Your task to perform on an android device: refresh tabs in the chrome app Image 0: 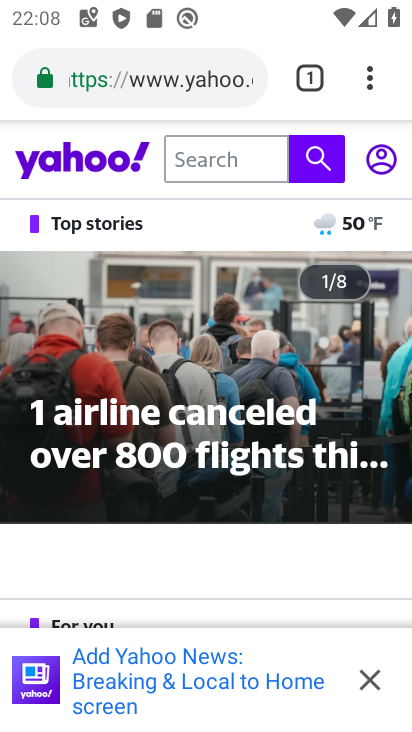
Step 0: press home button
Your task to perform on an android device: refresh tabs in the chrome app Image 1: 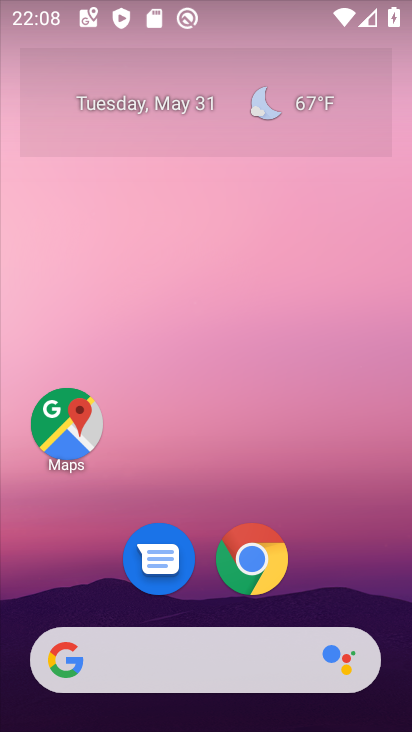
Step 1: click (257, 567)
Your task to perform on an android device: refresh tabs in the chrome app Image 2: 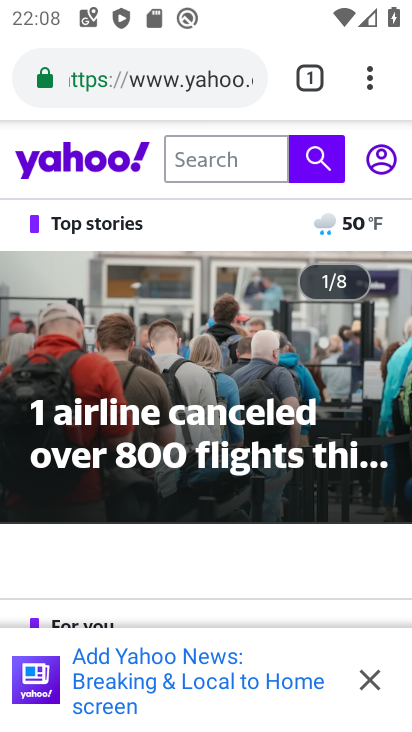
Step 2: click (367, 78)
Your task to perform on an android device: refresh tabs in the chrome app Image 3: 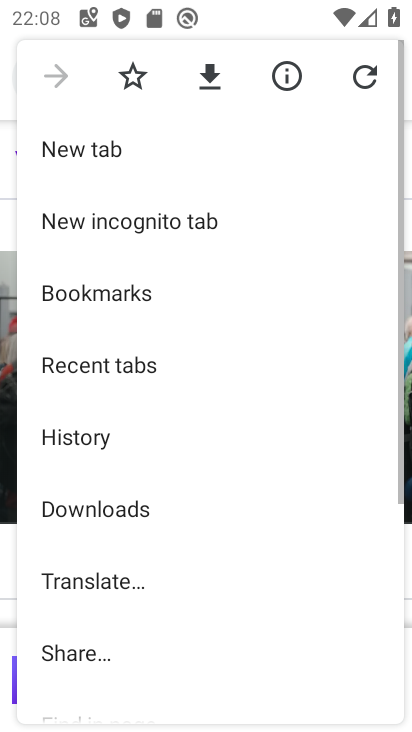
Step 3: click (363, 83)
Your task to perform on an android device: refresh tabs in the chrome app Image 4: 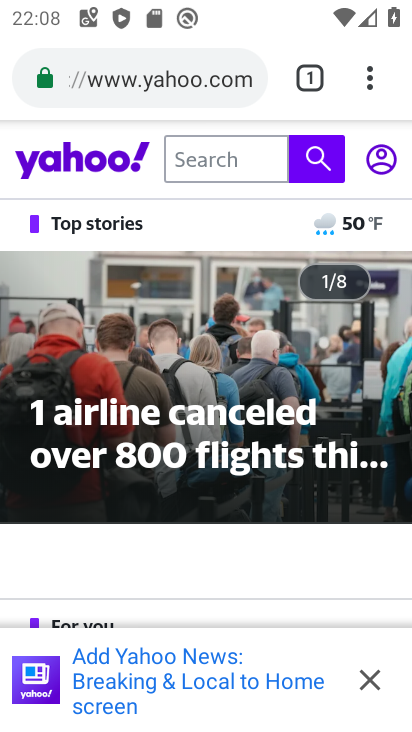
Step 4: task complete